Your task to perform on an android device: search for 2021 honda civic Image 0: 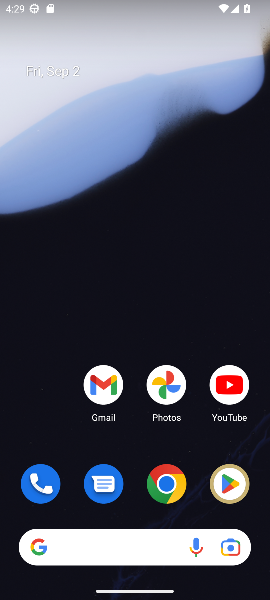
Step 0: click (169, 479)
Your task to perform on an android device: search for 2021 honda civic Image 1: 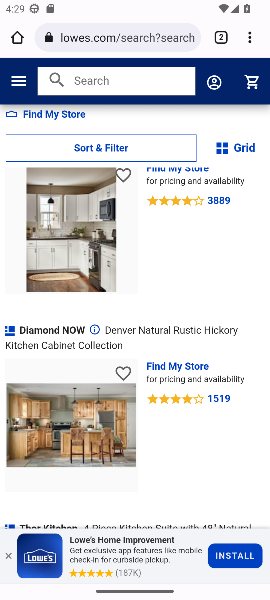
Step 1: drag from (248, 48) to (165, 78)
Your task to perform on an android device: search for 2021 honda civic Image 2: 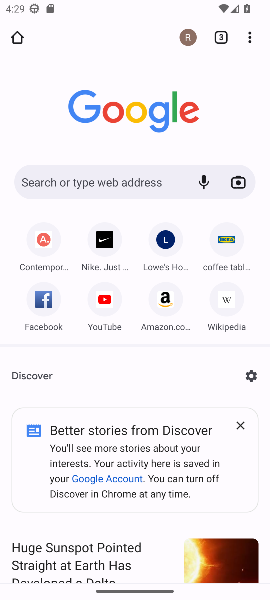
Step 2: click (101, 179)
Your task to perform on an android device: search for 2021 honda civic Image 3: 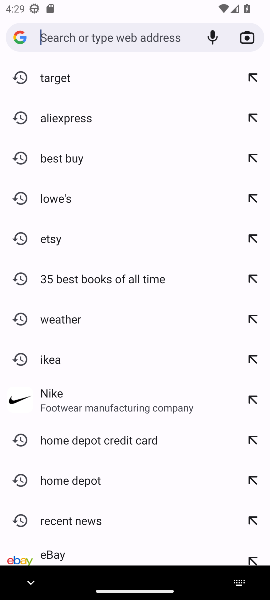
Step 3: type "2021 honda civic"
Your task to perform on an android device: search for 2021 honda civic Image 4: 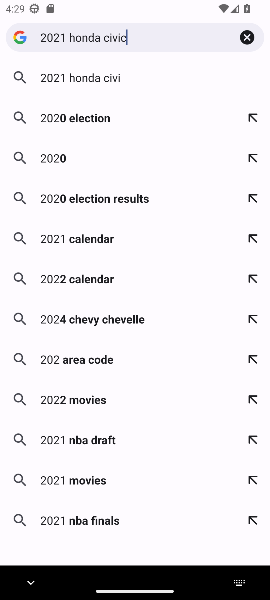
Step 4: press enter
Your task to perform on an android device: search for 2021 honda civic Image 5: 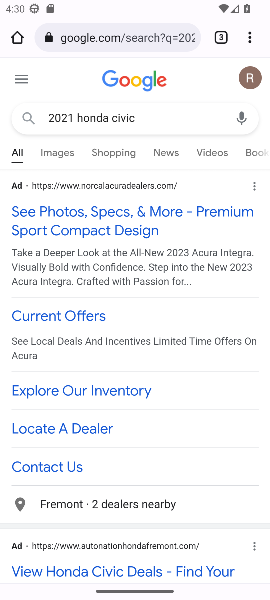
Step 5: drag from (148, 470) to (206, 246)
Your task to perform on an android device: search for 2021 honda civic Image 6: 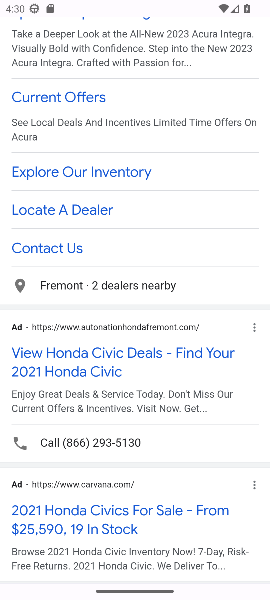
Step 6: click (134, 351)
Your task to perform on an android device: search for 2021 honda civic Image 7: 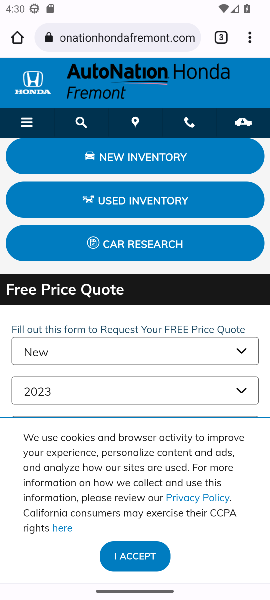
Step 7: click (129, 558)
Your task to perform on an android device: search for 2021 honda civic Image 8: 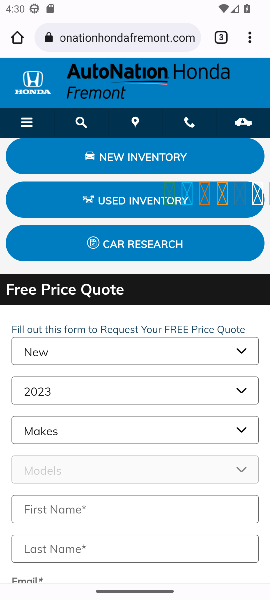
Step 8: task complete